Your task to perform on an android device: move a message to another label in the gmail app Image 0: 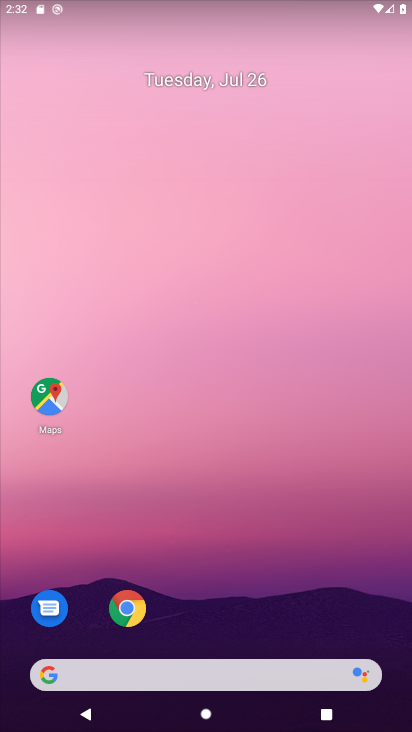
Step 0: drag from (275, 578) to (348, 197)
Your task to perform on an android device: move a message to another label in the gmail app Image 1: 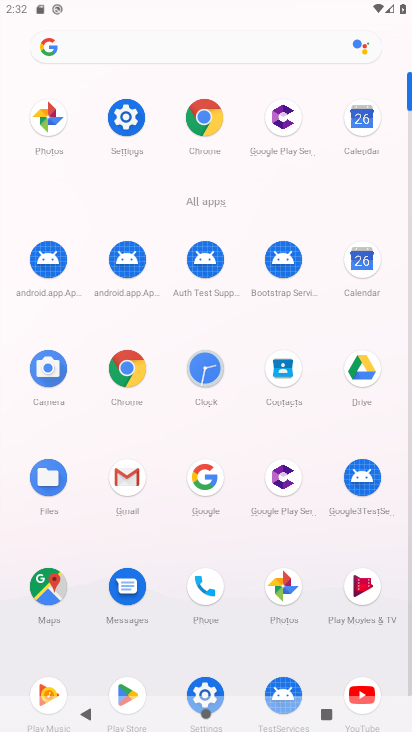
Step 1: click (129, 482)
Your task to perform on an android device: move a message to another label in the gmail app Image 2: 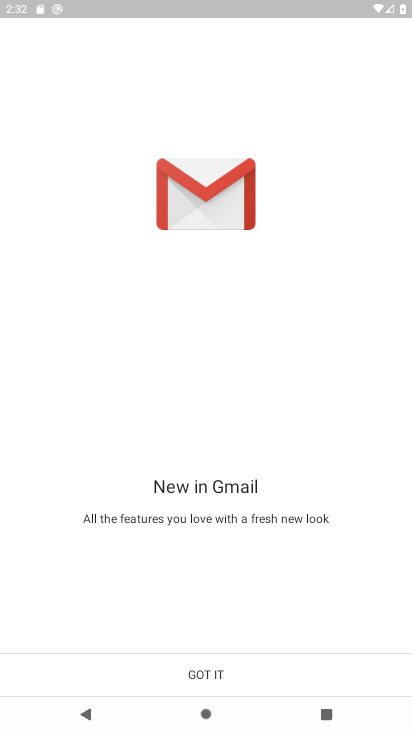
Step 2: click (237, 665)
Your task to perform on an android device: move a message to another label in the gmail app Image 3: 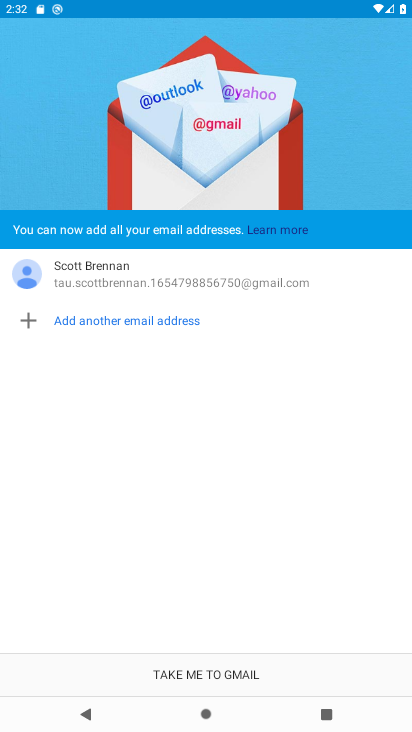
Step 3: click (237, 665)
Your task to perform on an android device: move a message to another label in the gmail app Image 4: 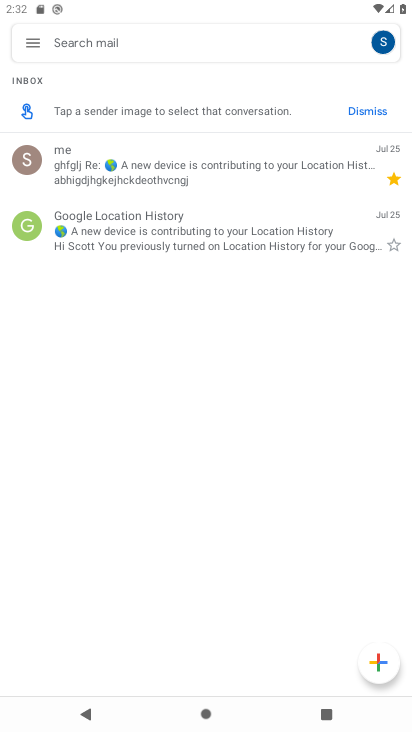
Step 4: click (29, 31)
Your task to perform on an android device: move a message to another label in the gmail app Image 5: 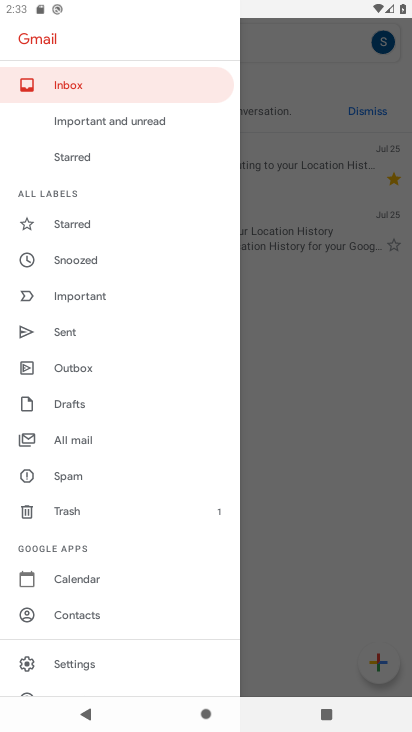
Step 5: click (128, 435)
Your task to perform on an android device: move a message to another label in the gmail app Image 6: 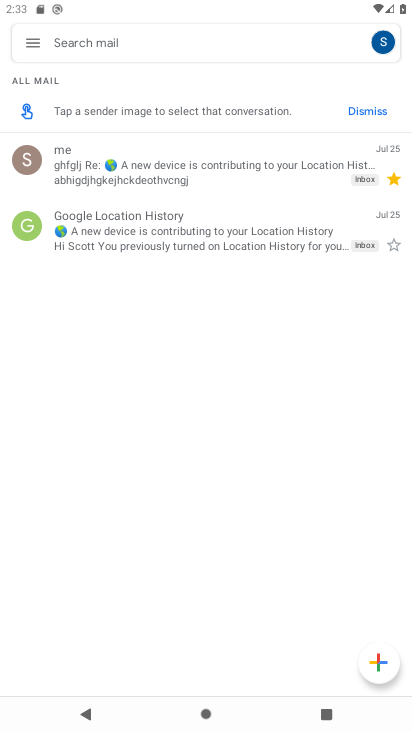
Step 6: click (305, 245)
Your task to perform on an android device: move a message to another label in the gmail app Image 7: 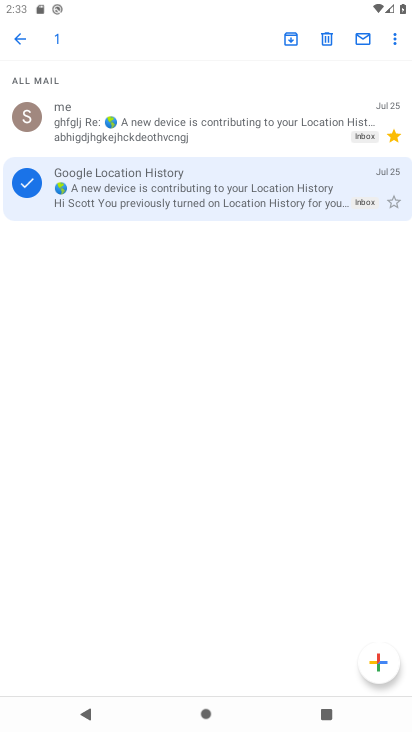
Step 7: click (397, 35)
Your task to perform on an android device: move a message to another label in the gmail app Image 8: 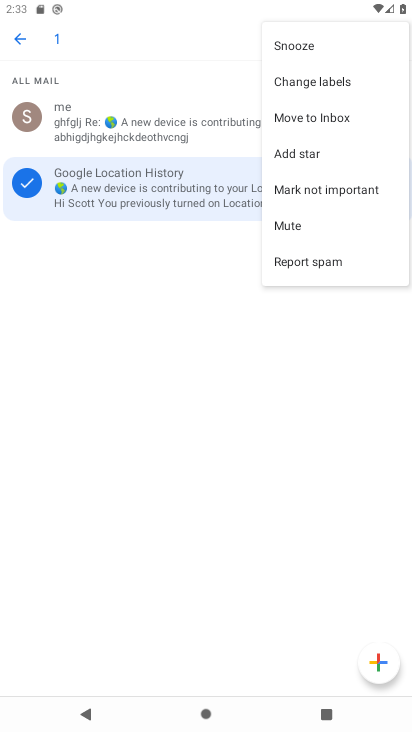
Step 8: click (327, 83)
Your task to perform on an android device: move a message to another label in the gmail app Image 9: 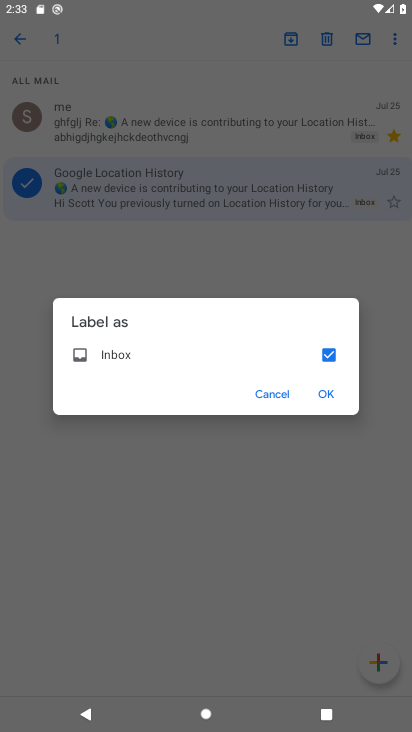
Step 9: click (328, 357)
Your task to perform on an android device: move a message to another label in the gmail app Image 10: 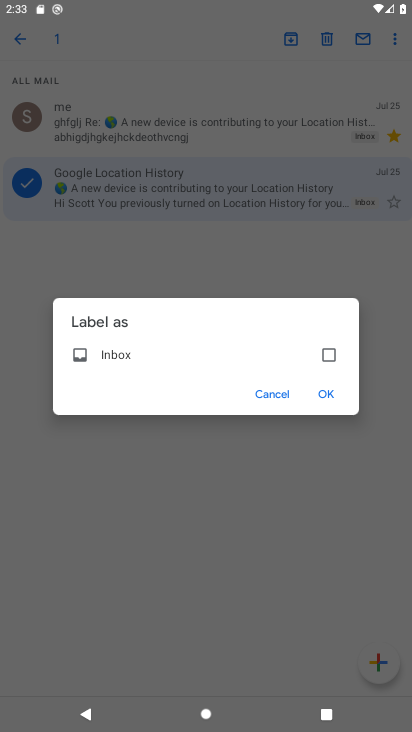
Step 10: click (332, 394)
Your task to perform on an android device: move a message to another label in the gmail app Image 11: 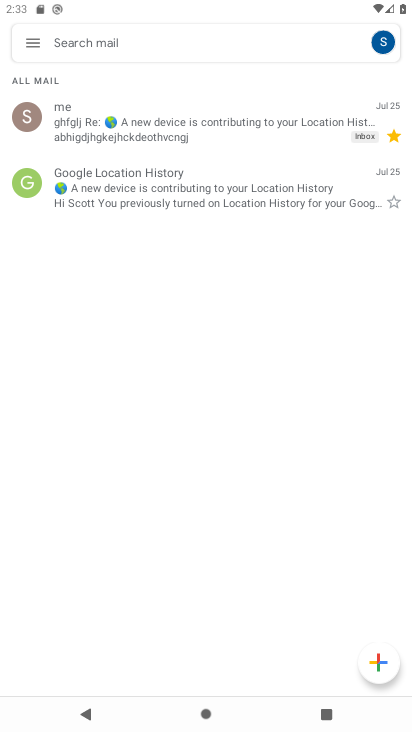
Step 11: task complete